Your task to perform on an android device: see tabs open on other devices in the chrome app Image 0: 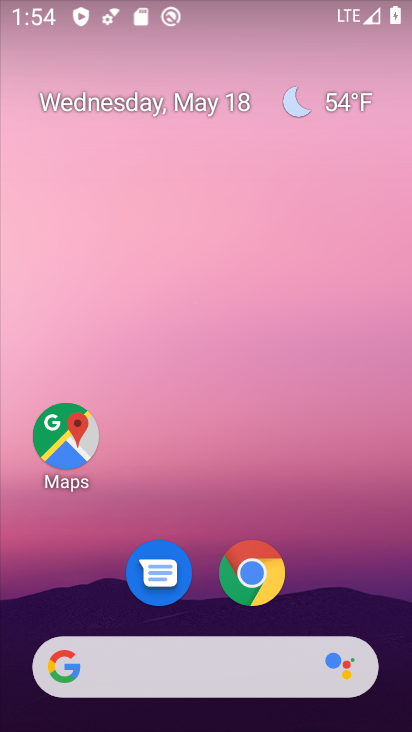
Step 0: click (270, 571)
Your task to perform on an android device: see tabs open on other devices in the chrome app Image 1: 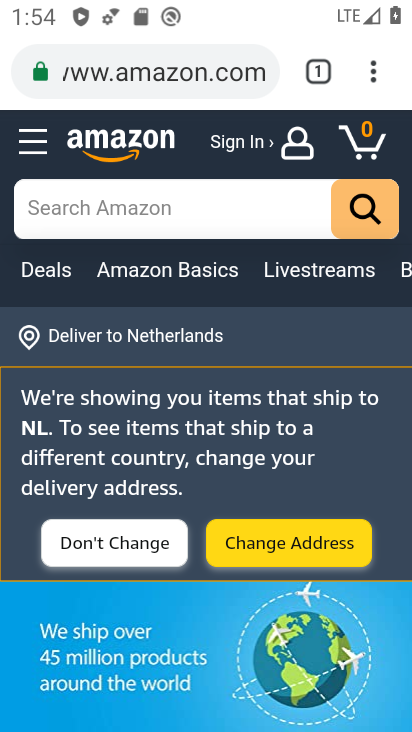
Step 1: drag from (380, 70) to (211, 331)
Your task to perform on an android device: see tabs open on other devices in the chrome app Image 2: 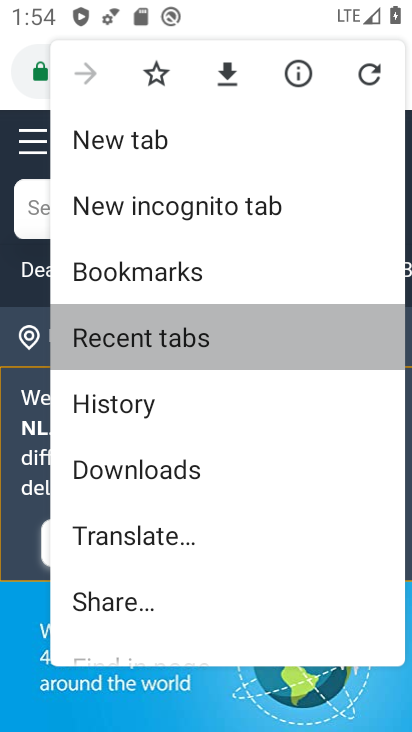
Step 2: click (211, 331)
Your task to perform on an android device: see tabs open on other devices in the chrome app Image 3: 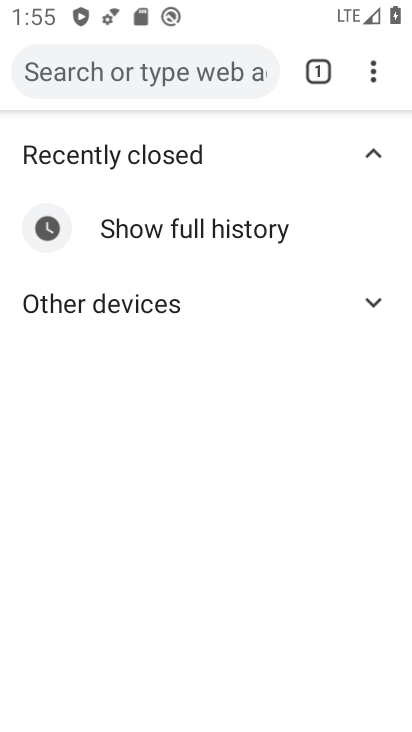
Step 3: task complete